Your task to perform on an android device: Open notification settings Image 0: 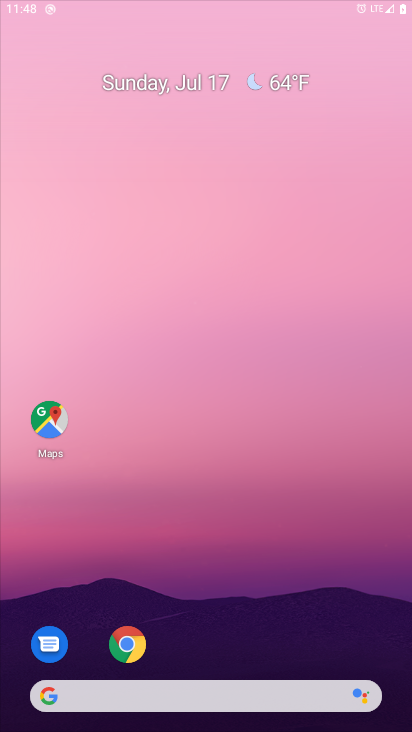
Step 0: press home button
Your task to perform on an android device: Open notification settings Image 1: 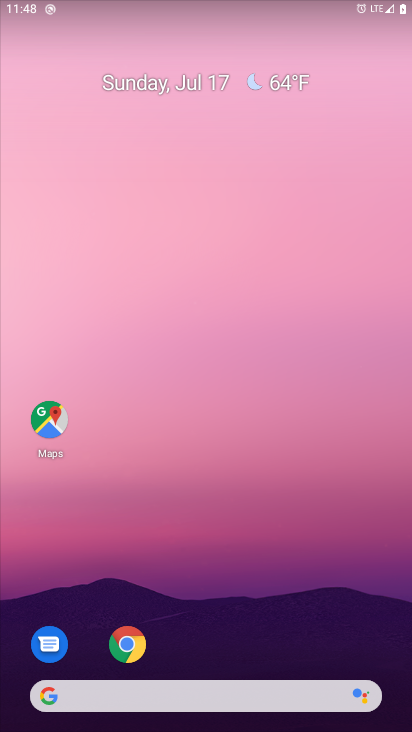
Step 1: drag from (321, 628) to (345, 3)
Your task to perform on an android device: Open notification settings Image 2: 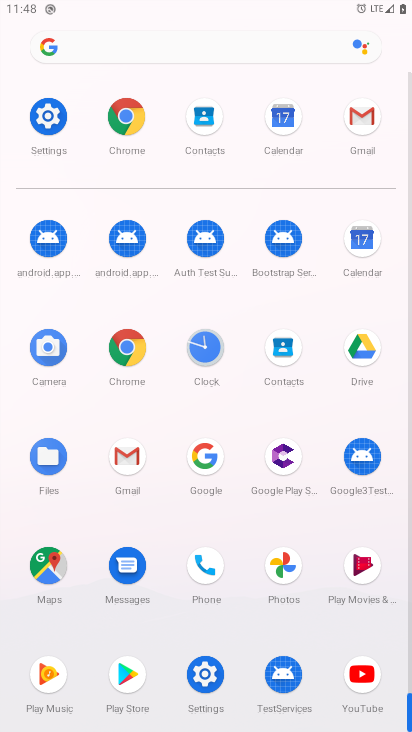
Step 2: click (42, 136)
Your task to perform on an android device: Open notification settings Image 3: 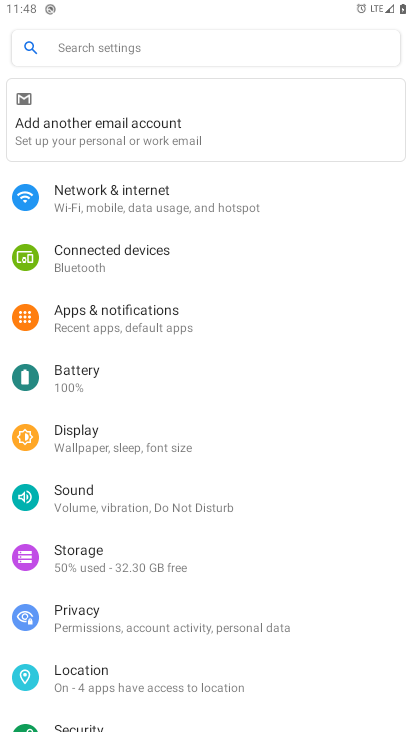
Step 3: click (87, 315)
Your task to perform on an android device: Open notification settings Image 4: 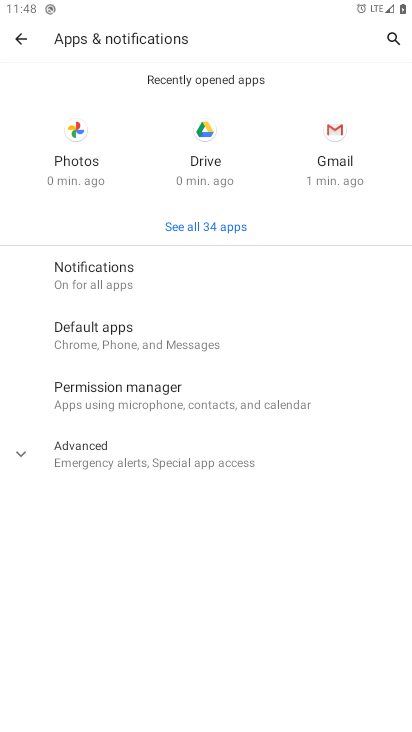
Step 4: task complete